Your task to perform on an android device: see sites visited before in the chrome app Image 0: 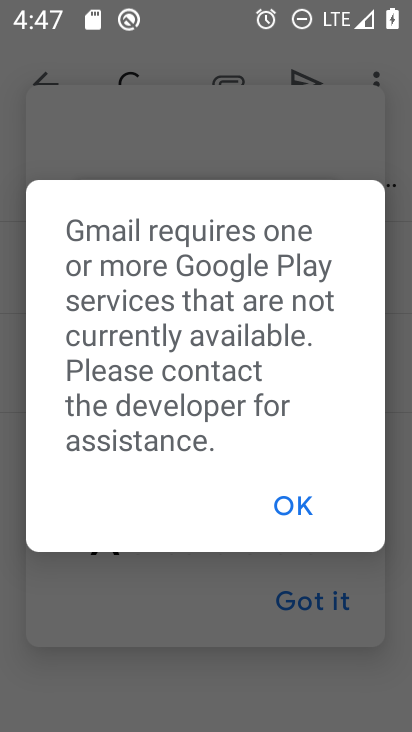
Step 0: press home button
Your task to perform on an android device: see sites visited before in the chrome app Image 1: 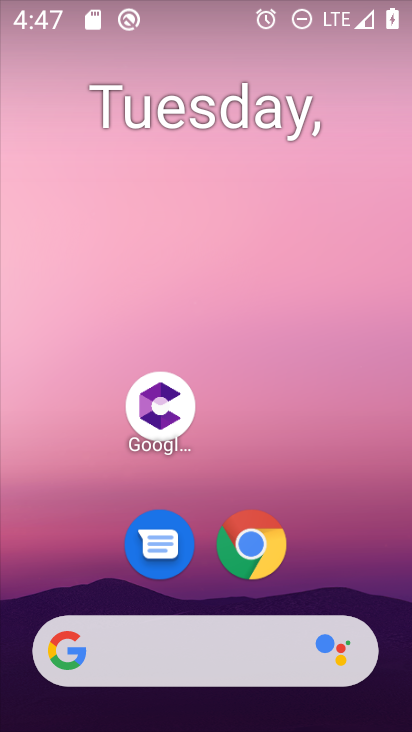
Step 1: drag from (377, 558) to (370, 199)
Your task to perform on an android device: see sites visited before in the chrome app Image 2: 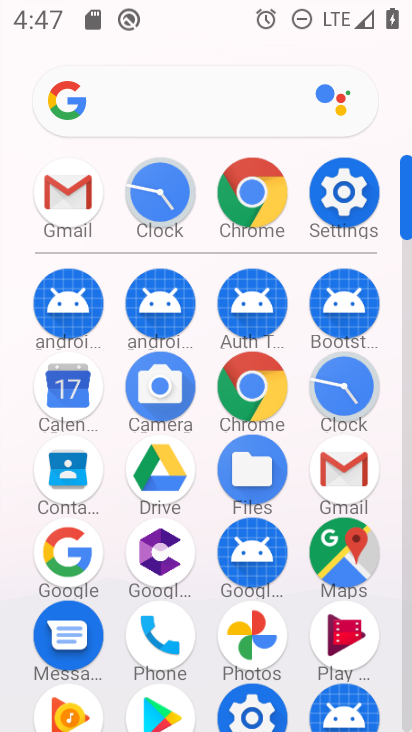
Step 2: click (242, 399)
Your task to perform on an android device: see sites visited before in the chrome app Image 3: 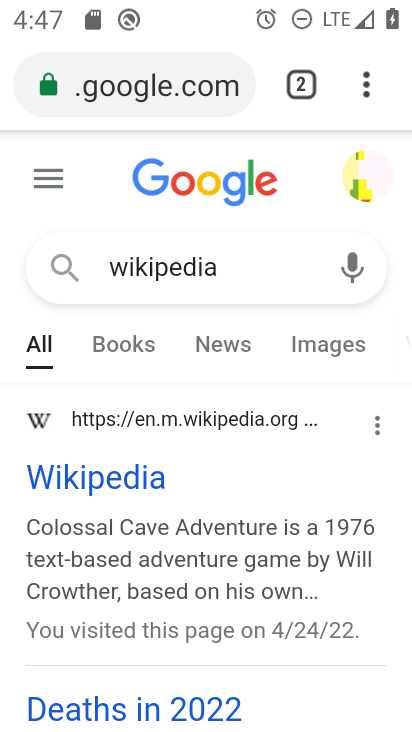
Step 3: click (368, 93)
Your task to perform on an android device: see sites visited before in the chrome app Image 4: 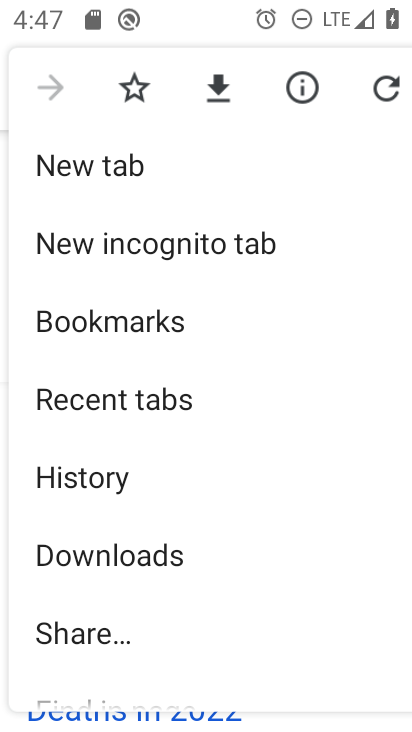
Step 4: click (148, 499)
Your task to perform on an android device: see sites visited before in the chrome app Image 5: 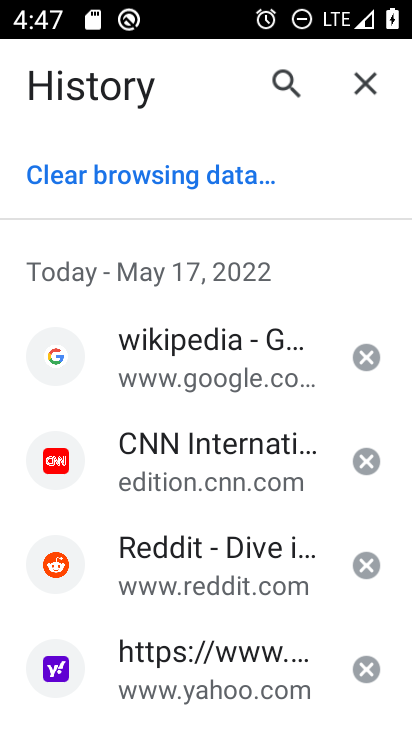
Step 5: task complete